Your task to perform on an android device: What is the news today? Image 0: 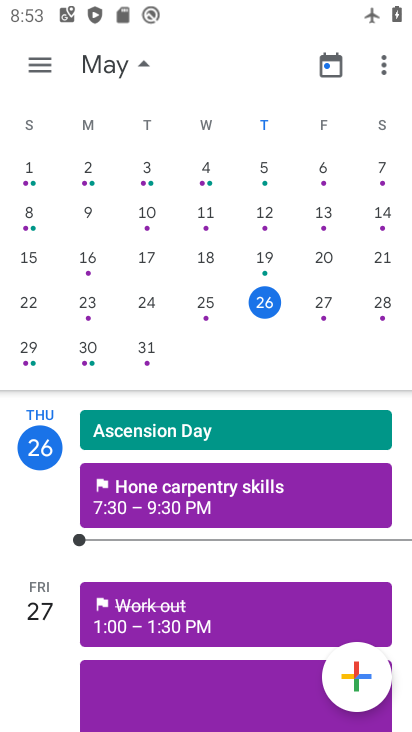
Step 0: press home button
Your task to perform on an android device: What is the news today? Image 1: 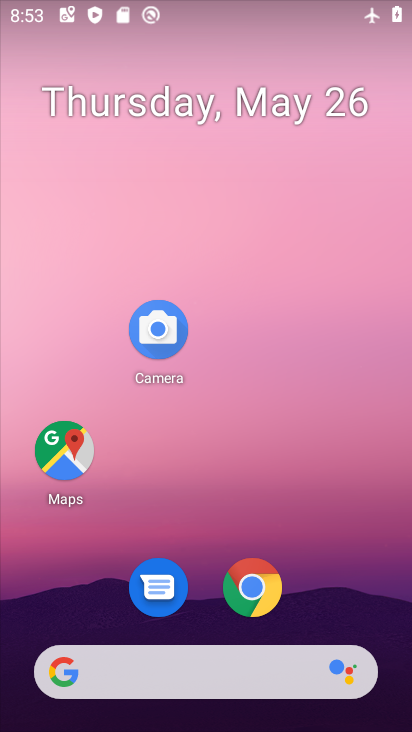
Step 1: drag from (208, 627) to (216, 206)
Your task to perform on an android device: What is the news today? Image 2: 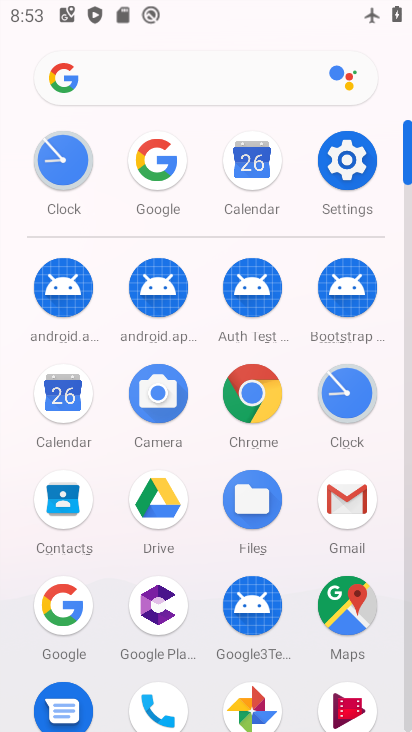
Step 2: click (173, 170)
Your task to perform on an android device: What is the news today? Image 3: 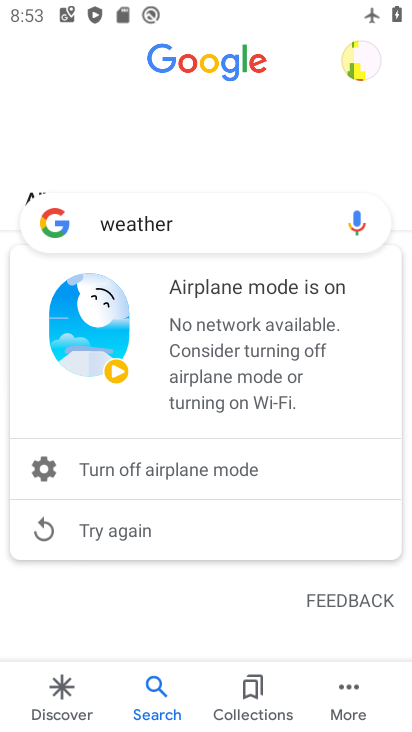
Step 3: click (224, 219)
Your task to perform on an android device: What is the news today? Image 4: 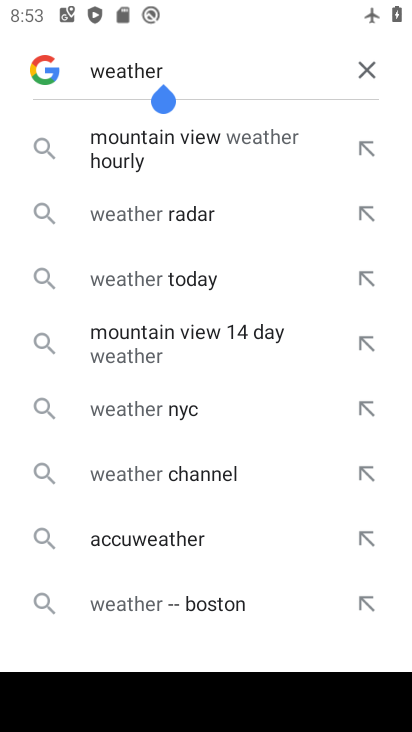
Step 4: click (357, 66)
Your task to perform on an android device: What is the news today? Image 5: 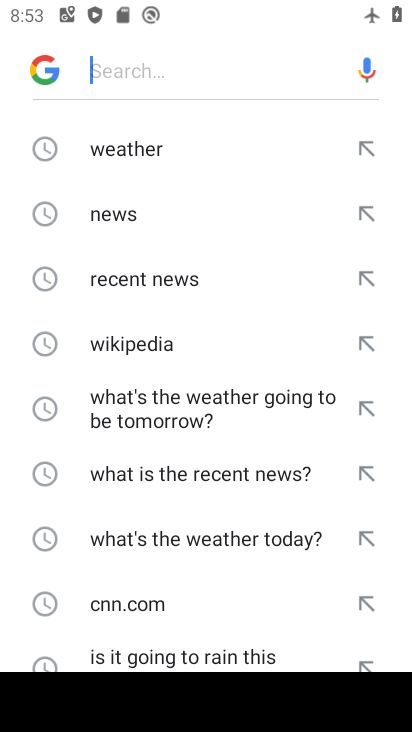
Step 5: click (204, 75)
Your task to perform on an android device: What is the news today? Image 6: 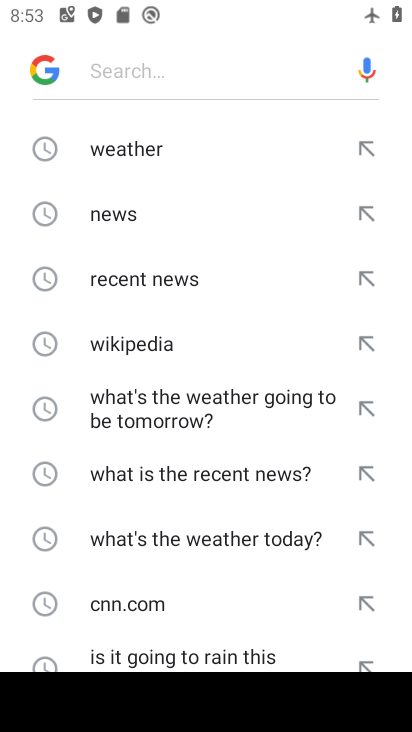
Step 6: click (139, 214)
Your task to perform on an android device: What is the news today? Image 7: 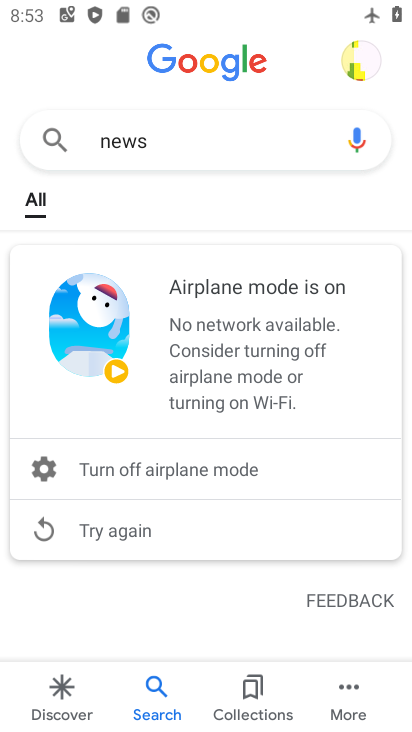
Step 7: task complete